Your task to perform on an android device: Go to accessibility settings Image 0: 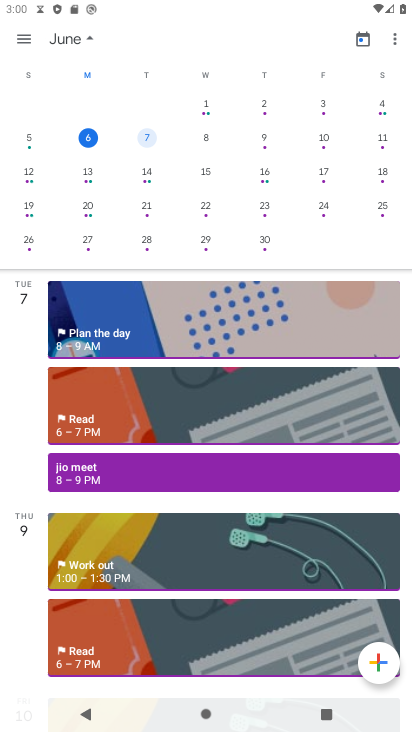
Step 0: press home button
Your task to perform on an android device: Go to accessibility settings Image 1: 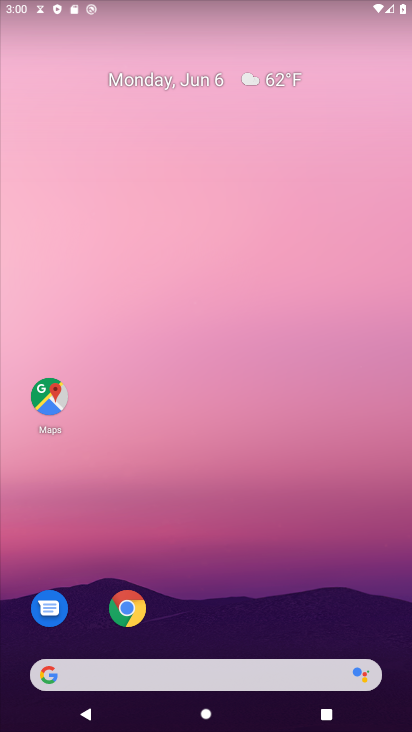
Step 1: drag from (219, 629) to (237, 61)
Your task to perform on an android device: Go to accessibility settings Image 2: 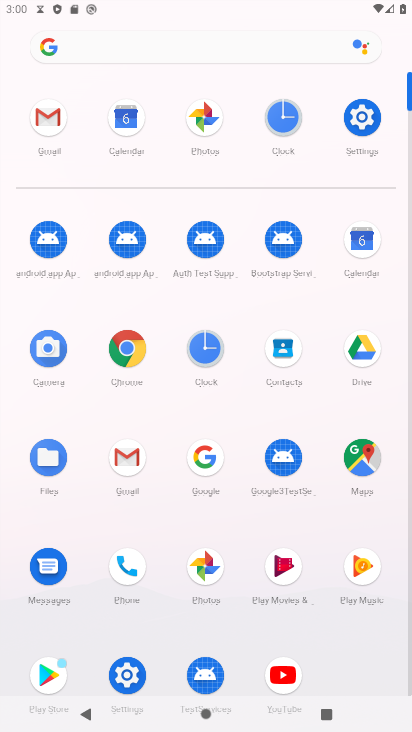
Step 2: click (362, 121)
Your task to perform on an android device: Go to accessibility settings Image 3: 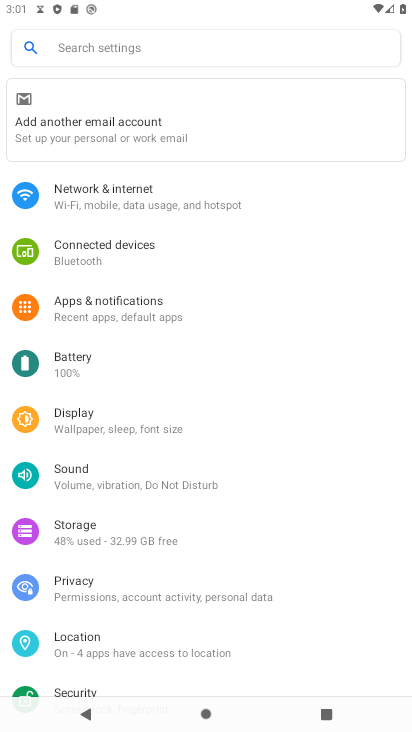
Step 3: drag from (113, 589) to (93, 127)
Your task to perform on an android device: Go to accessibility settings Image 4: 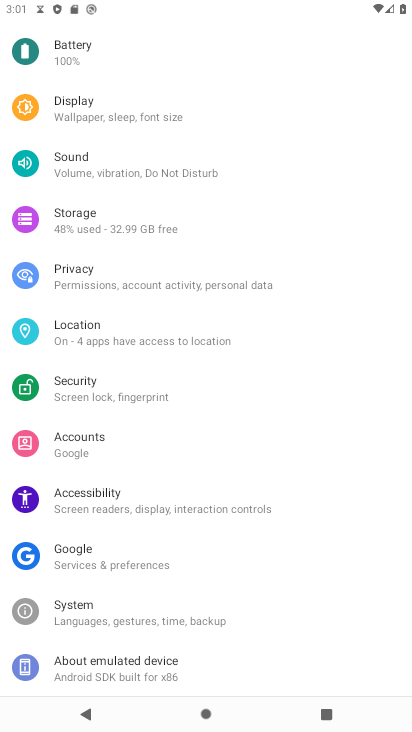
Step 4: drag from (155, 597) to (155, 318)
Your task to perform on an android device: Go to accessibility settings Image 5: 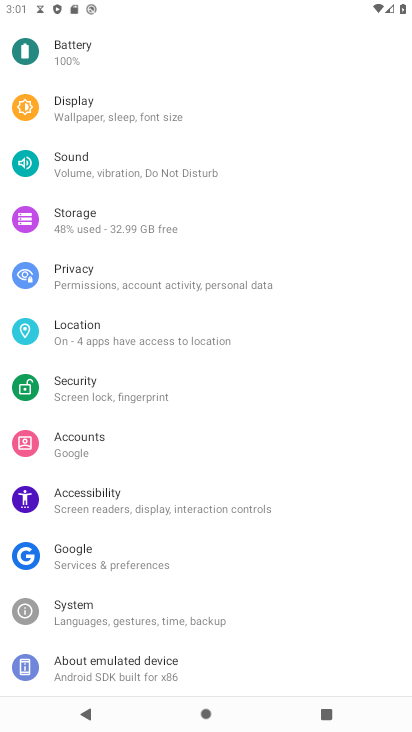
Step 5: click (85, 506)
Your task to perform on an android device: Go to accessibility settings Image 6: 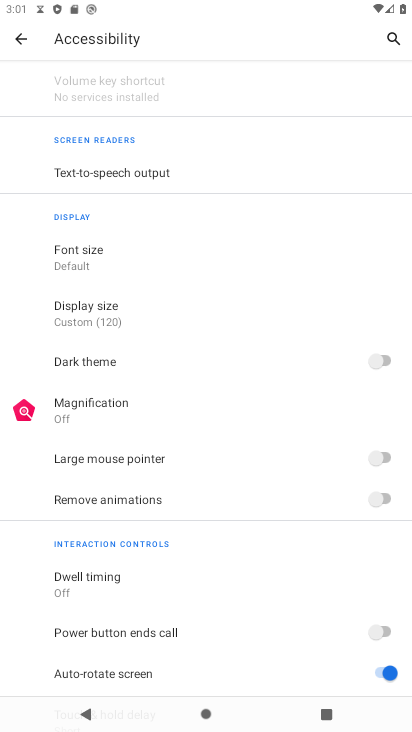
Step 6: task complete